Your task to perform on an android device: turn on the 24-hour format for clock Image 0: 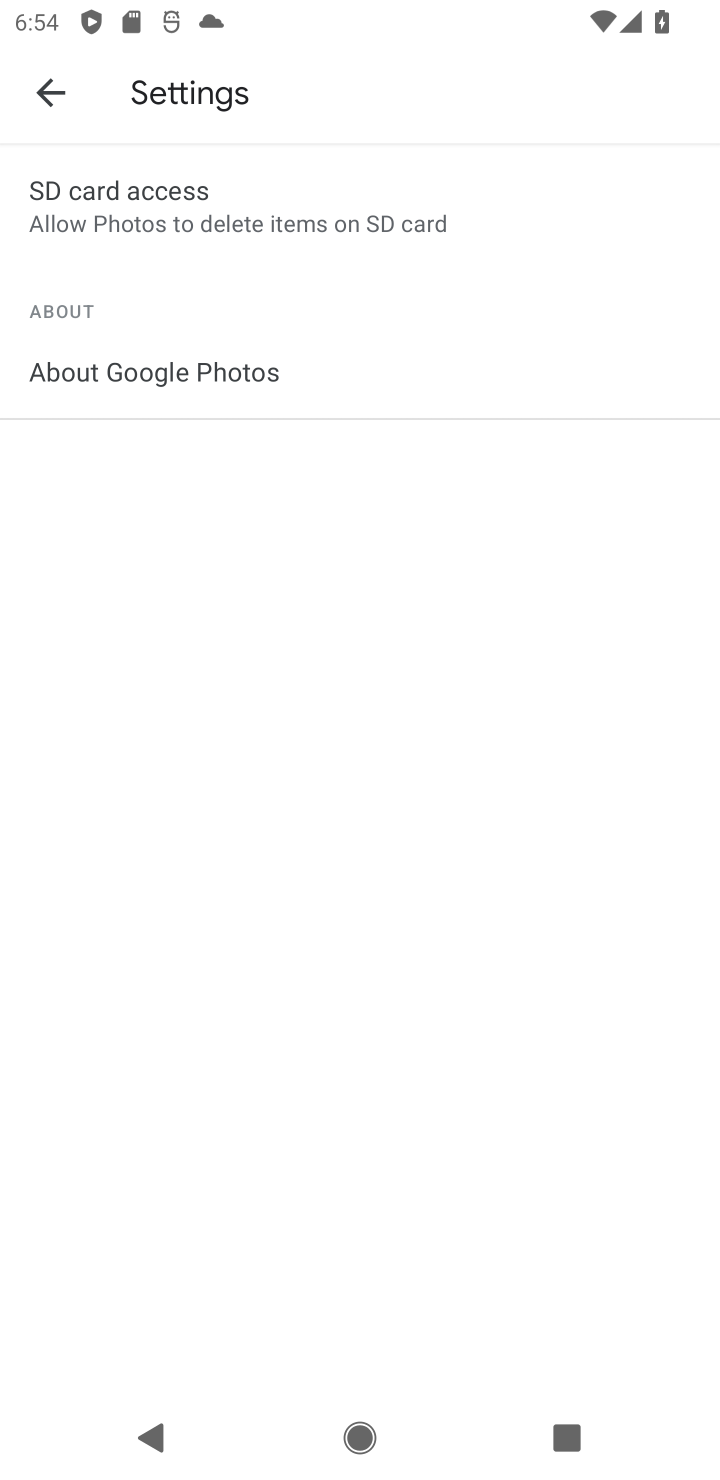
Step 0: press home button
Your task to perform on an android device: turn on the 24-hour format for clock Image 1: 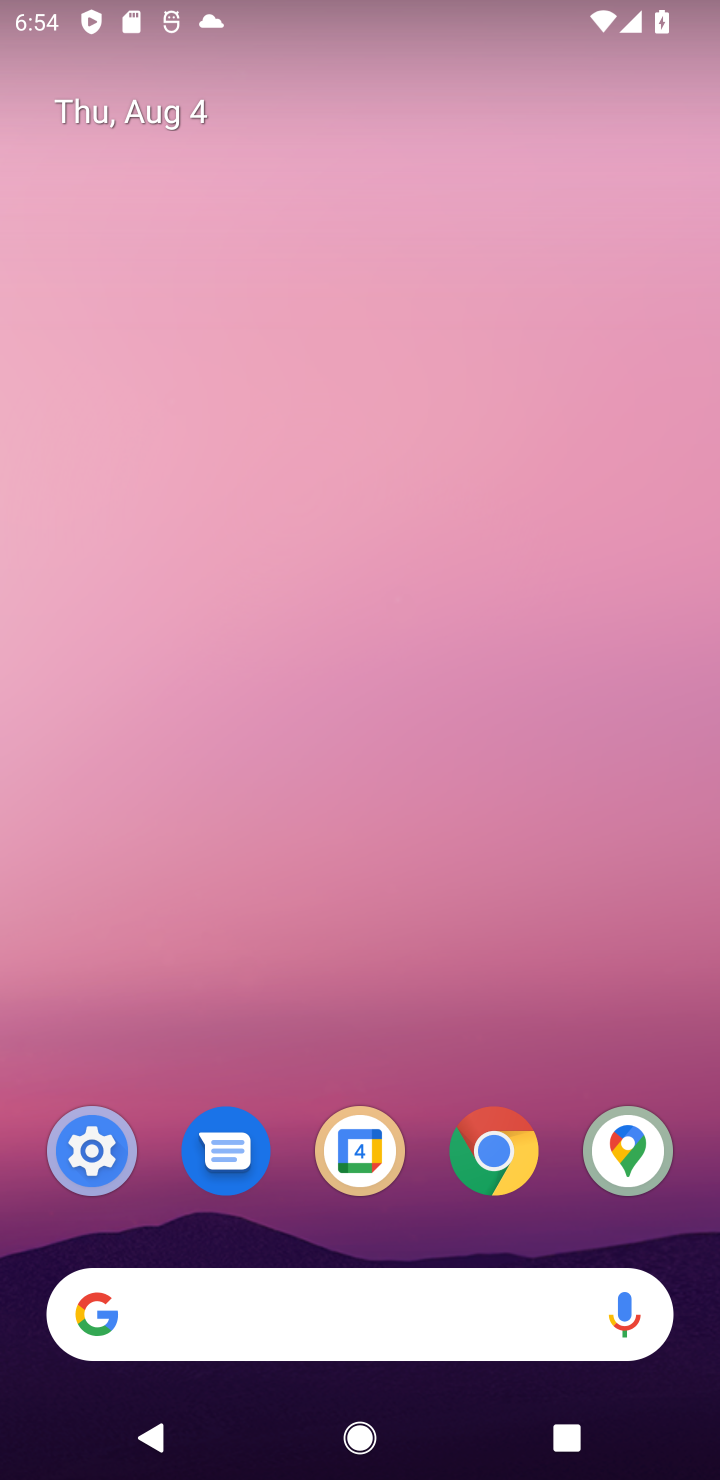
Step 1: drag from (413, 1242) to (364, 4)
Your task to perform on an android device: turn on the 24-hour format for clock Image 2: 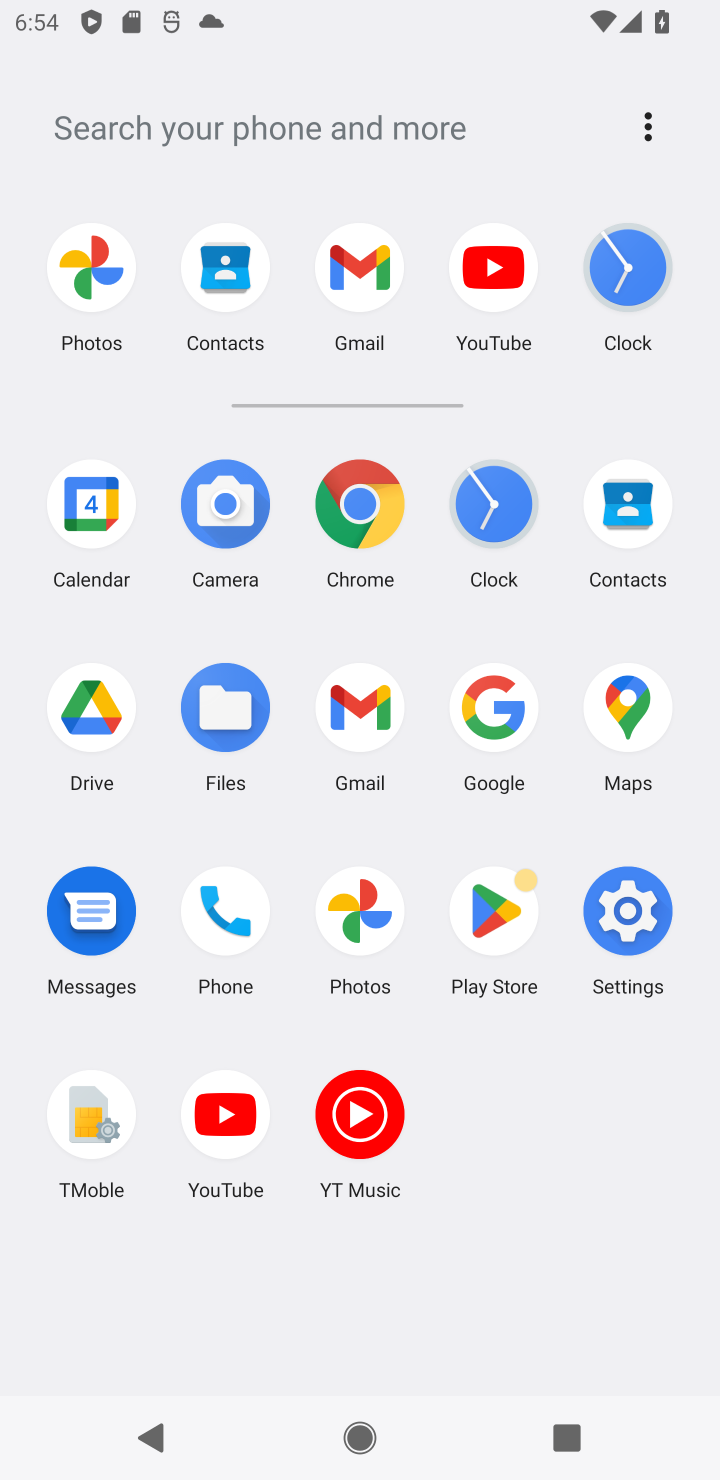
Step 2: click (595, 937)
Your task to perform on an android device: turn on the 24-hour format for clock Image 3: 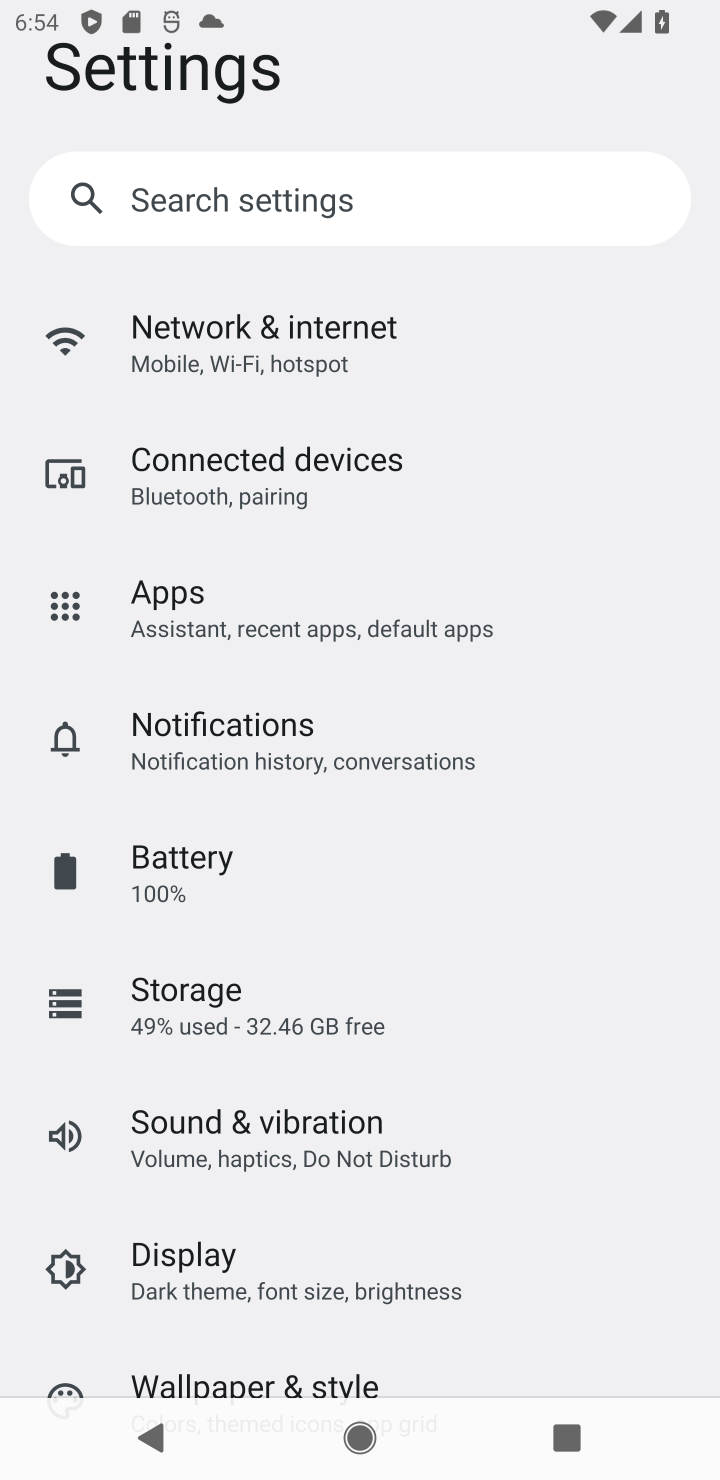
Step 3: drag from (335, 1152) to (392, 747)
Your task to perform on an android device: turn on the 24-hour format for clock Image 4: 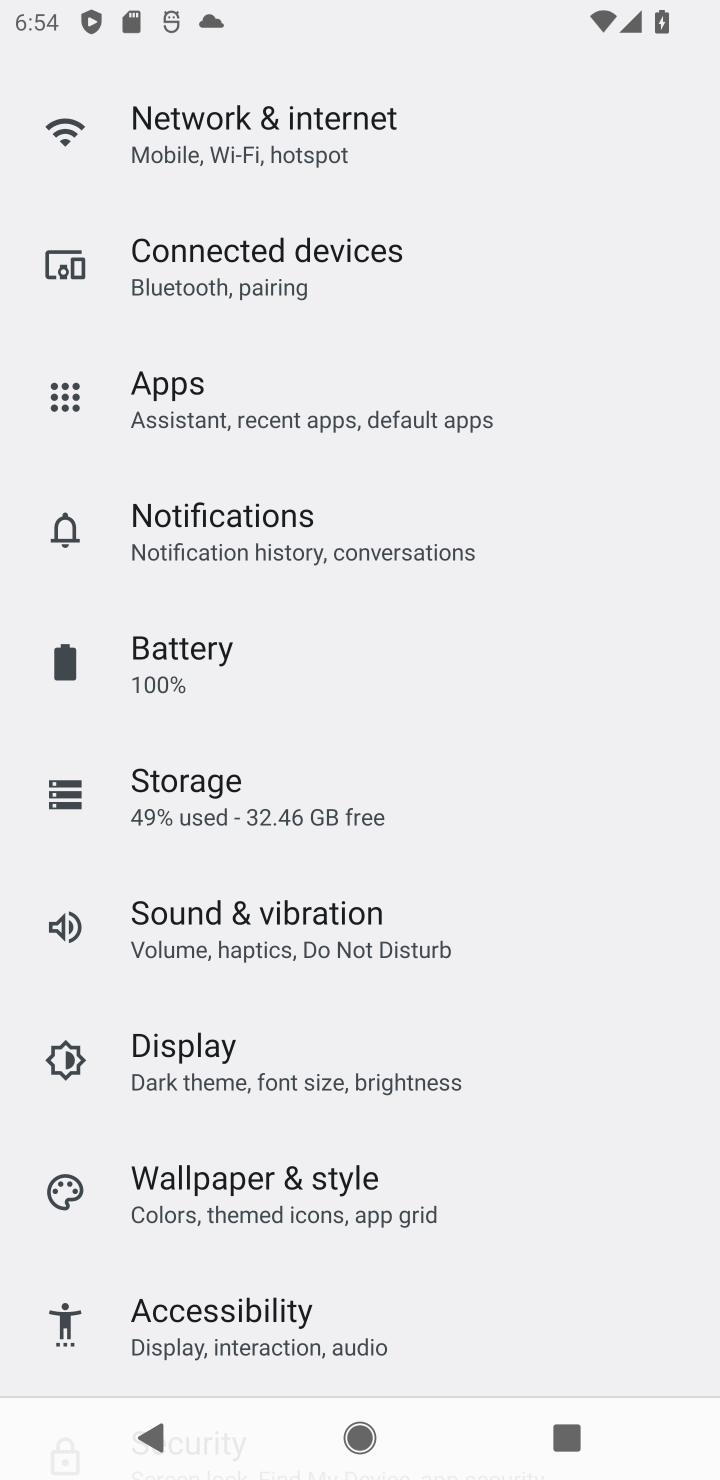
Step 4: drag from (260, 1061) to (350, 299)
Your task to perform on an android device: turn on the 24-hour format for clock Image 5: 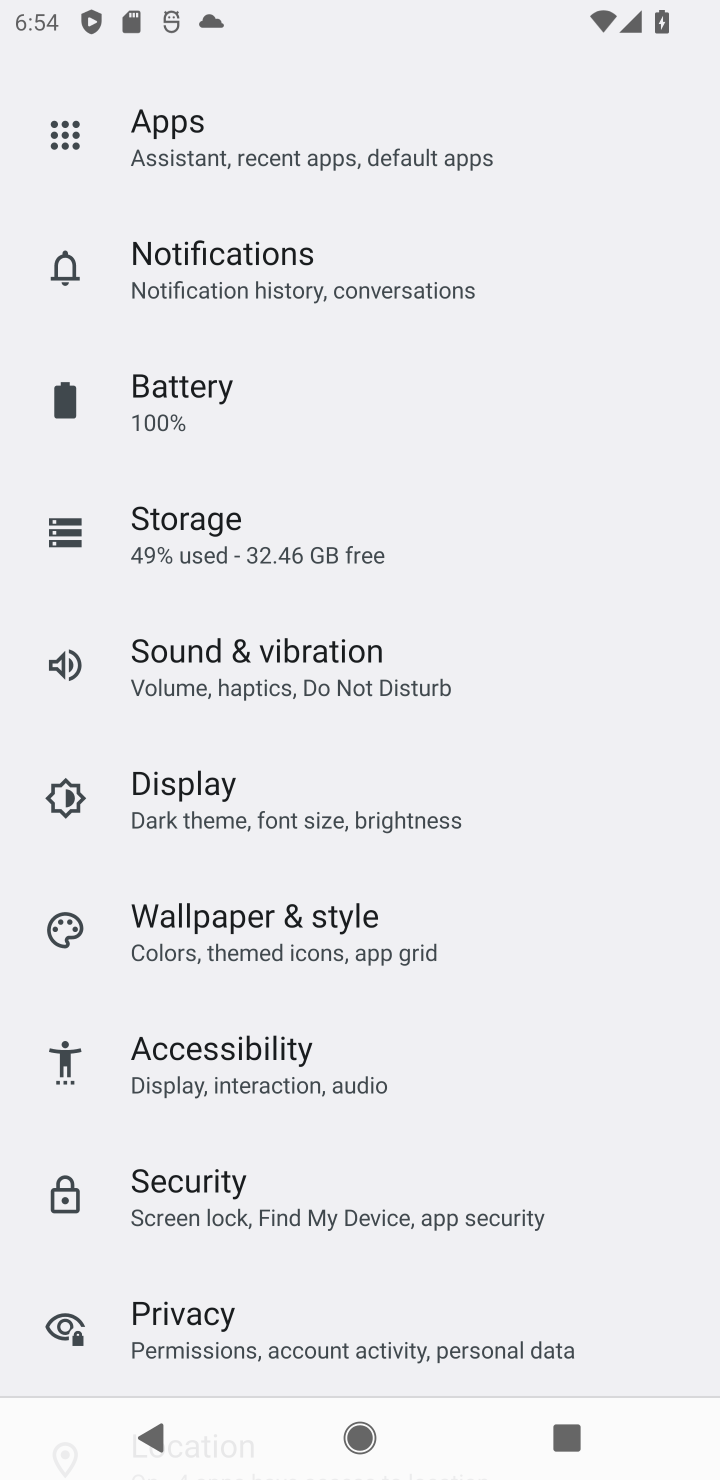
Step 5: drag from (389, 1195) to (544, 160)
Your task to perform on an android device: turn on the 24-hour format for clock Image 6: 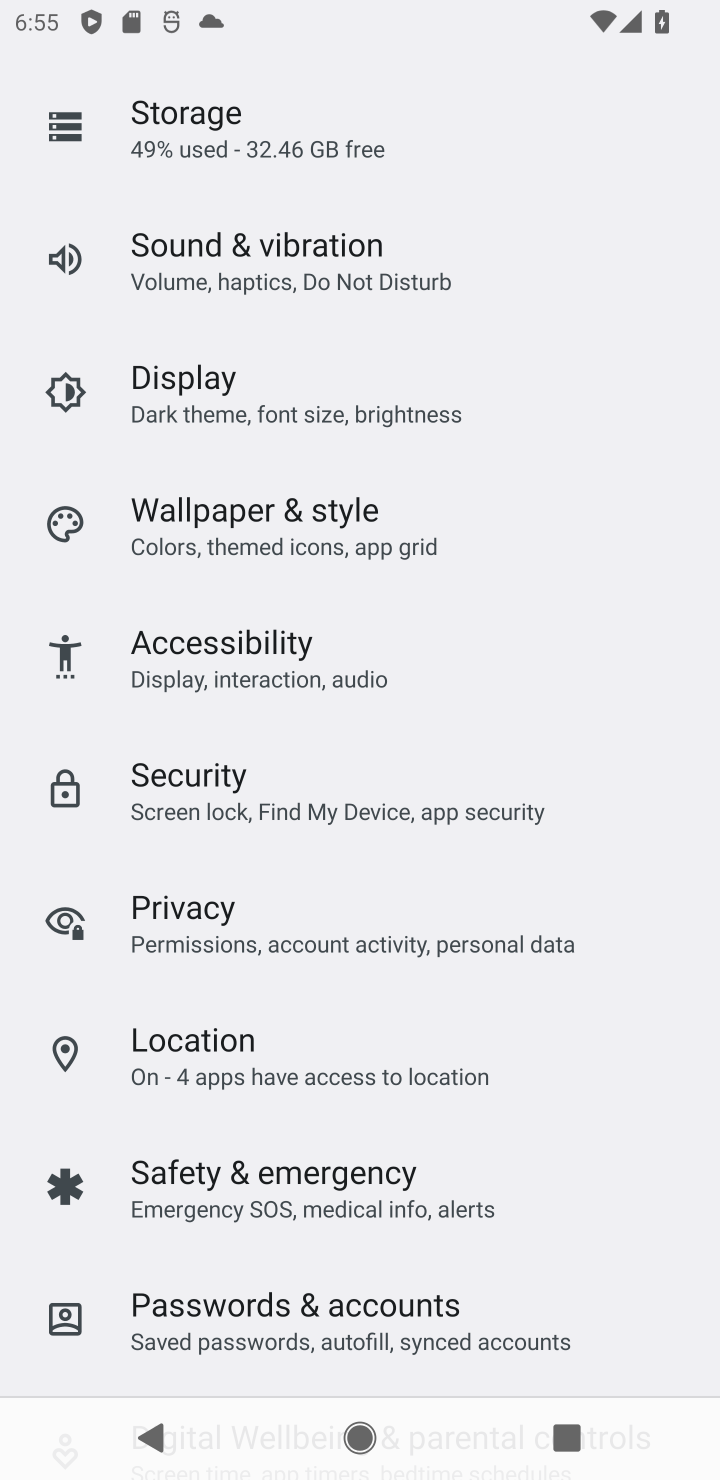
Step 6: drag from (353, 1220) to (396, 509)
Your task to perform on an android device: turn on the 24-hour format for clock Image 7: 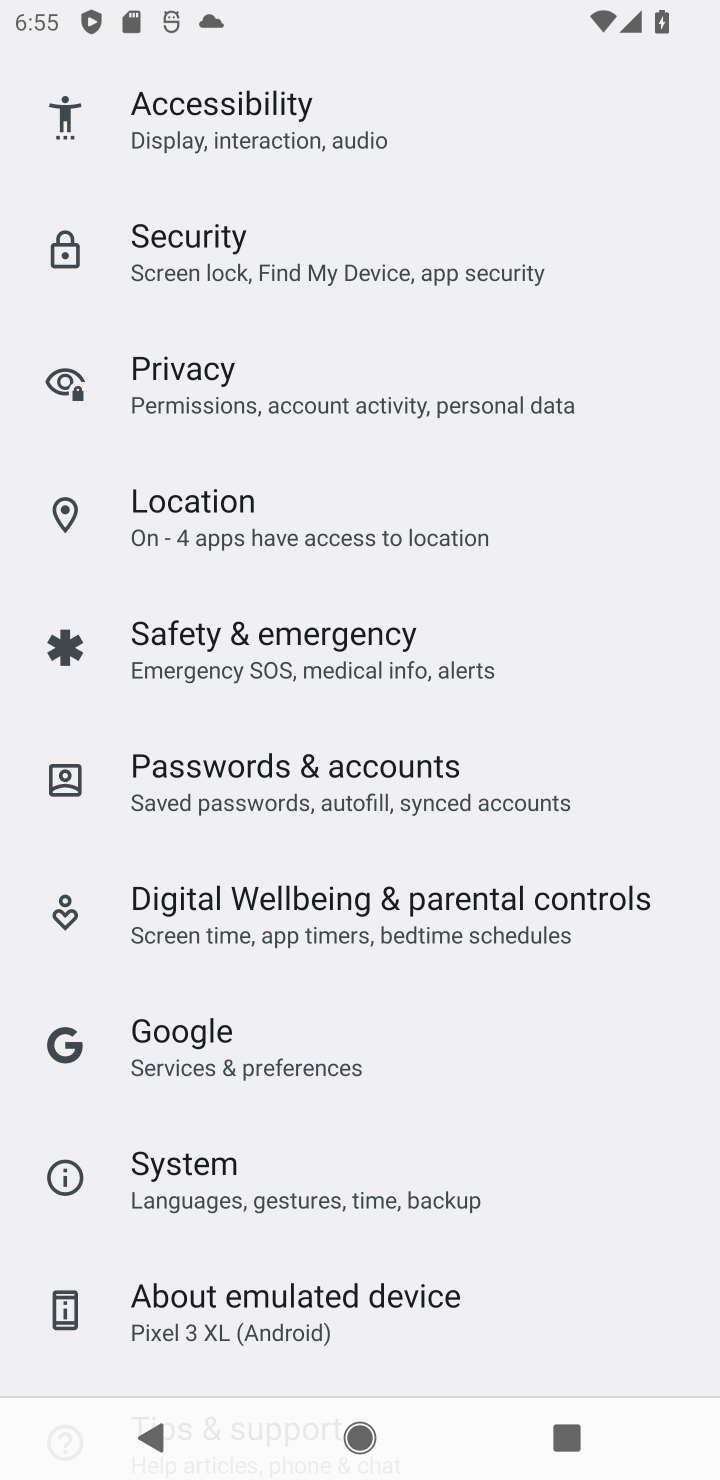
Step 7: click (261, 1169)
Your task to perform on an android device: turn on the 24-hour format for clock Image 8: 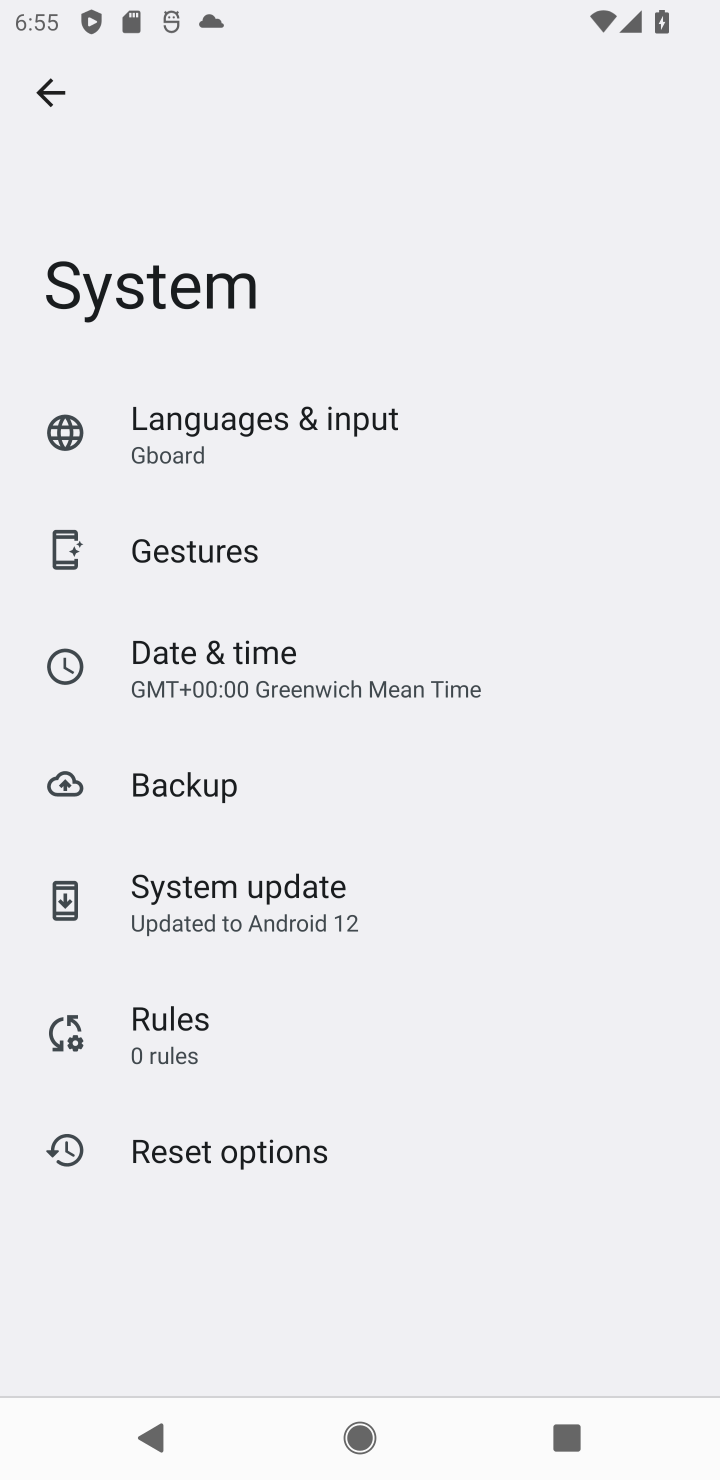
Step 8: click (212, 426)
Your task to perform on an android device: turn on the 24-hour format for clock Image 9: 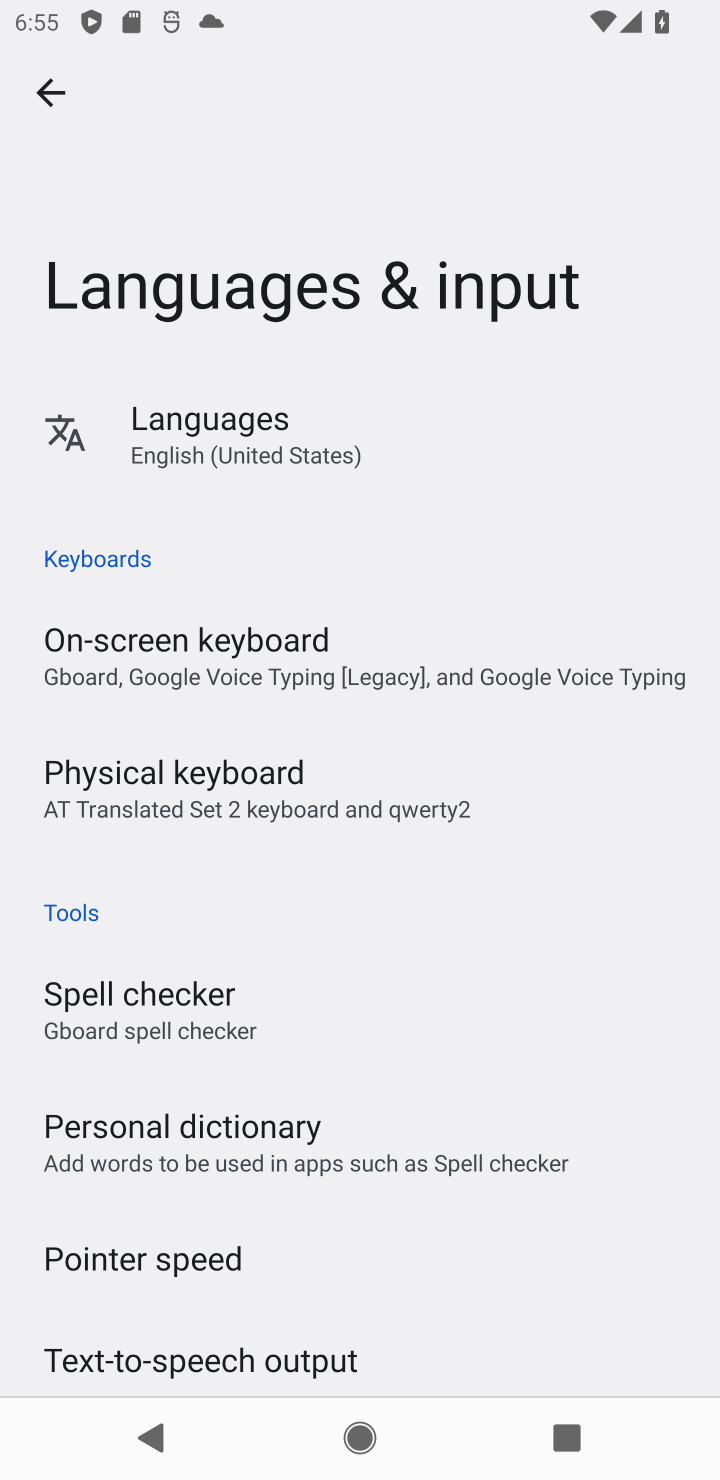
Step 9: drag from (217, 1135) to (239, 718)
Your task to perform on an android device: turn on the 24-hour format for clock Image 10: 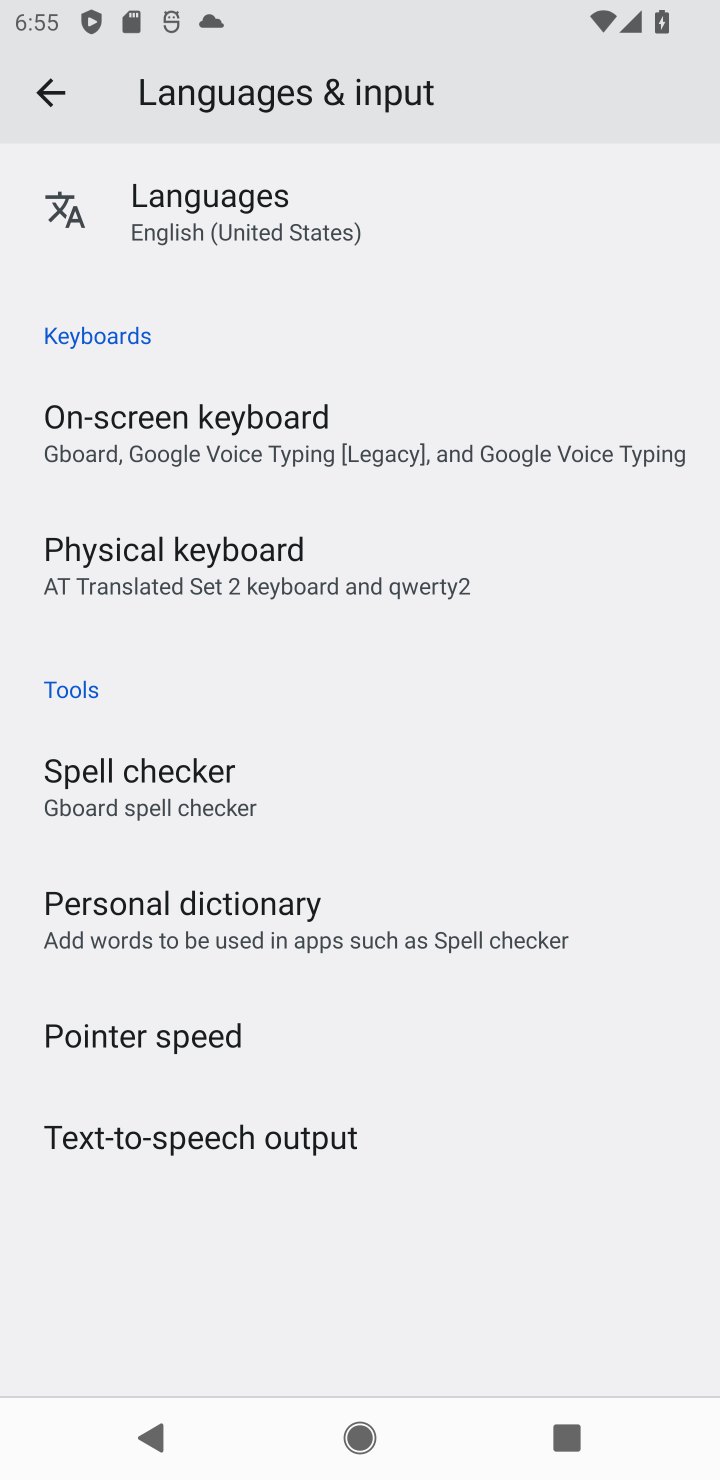
Step 10: click (43, 67)
Your task to perform on an android device: turn on the 24-hour format for clock Image 11: 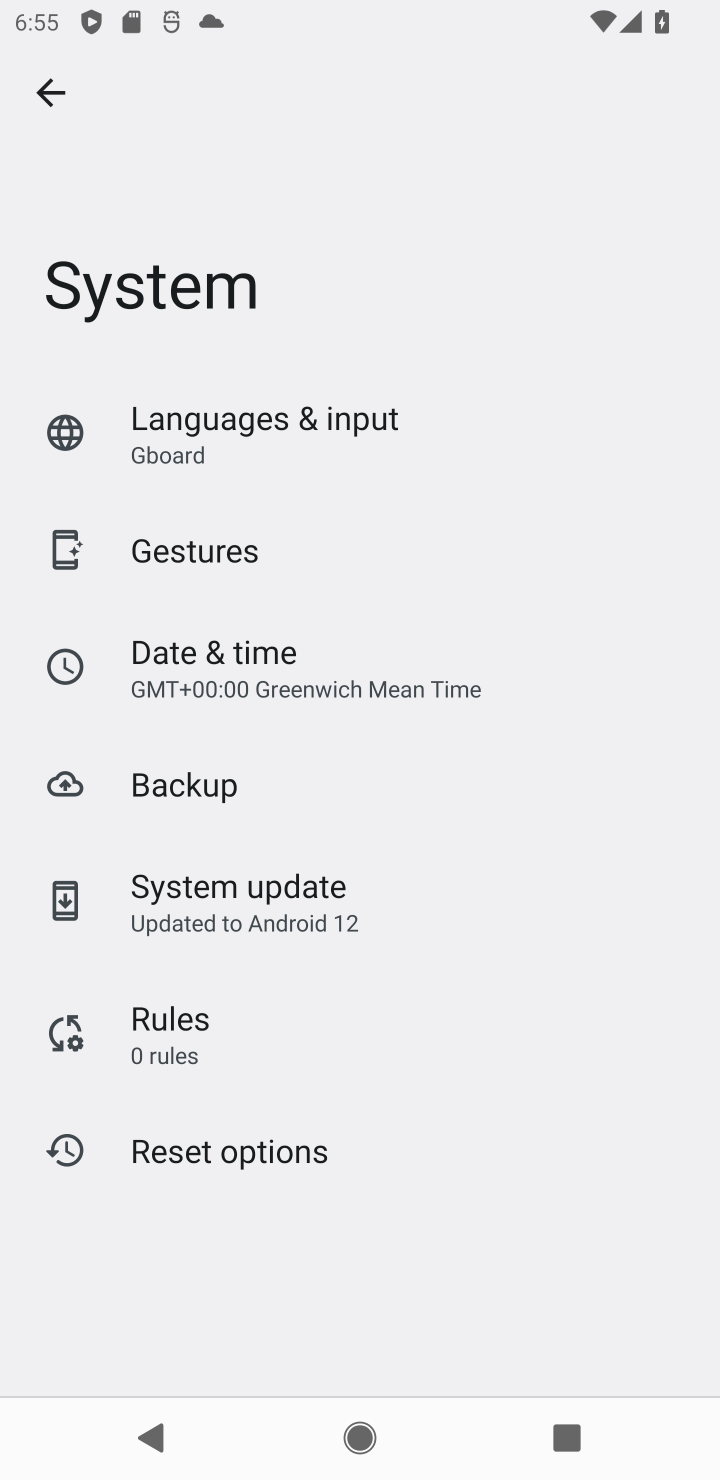
Step 11: click (270, 677)
Your task to perform on an android device: turn on the 24-hour format for clock Image 12: 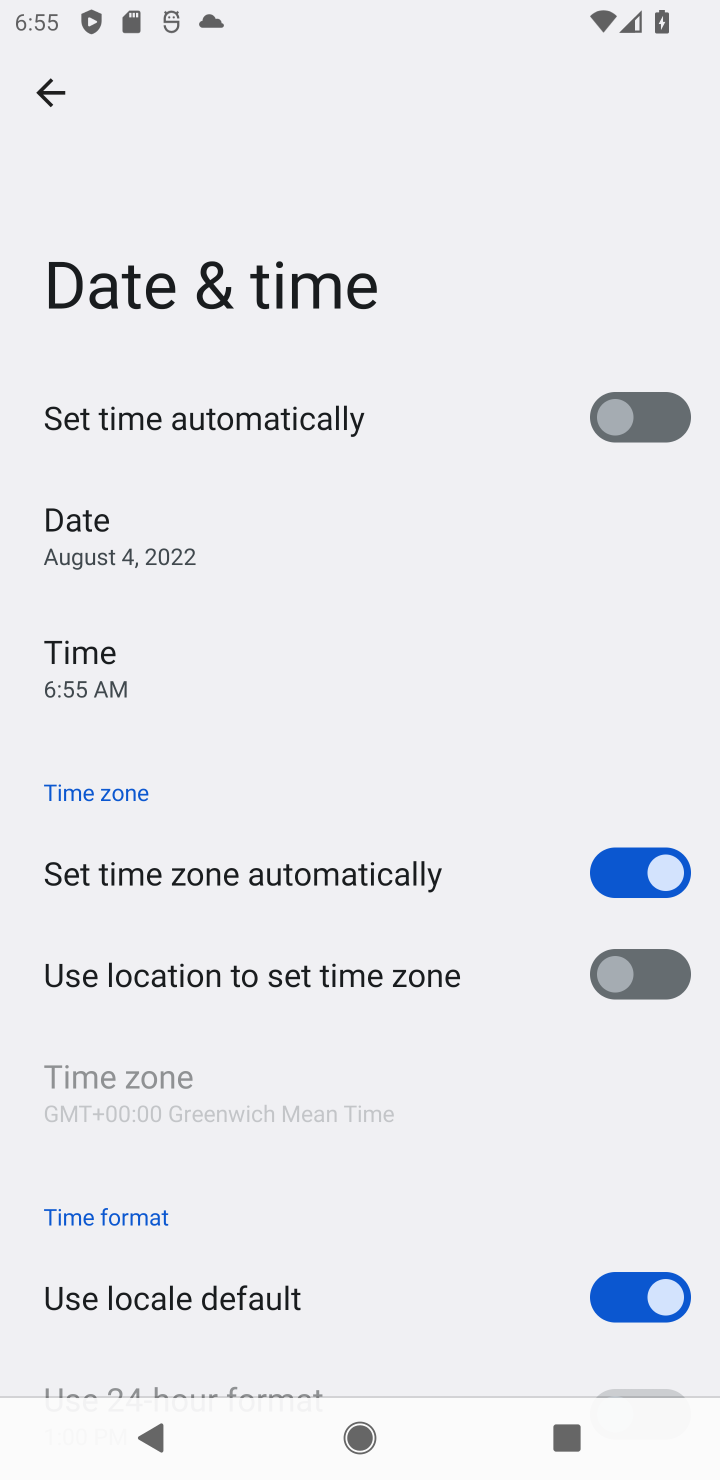
Step 12: drag from (357, 1194) to (404, 714)
Your task to perform on an android device: turn on the 24-hour format for clock Image 13: 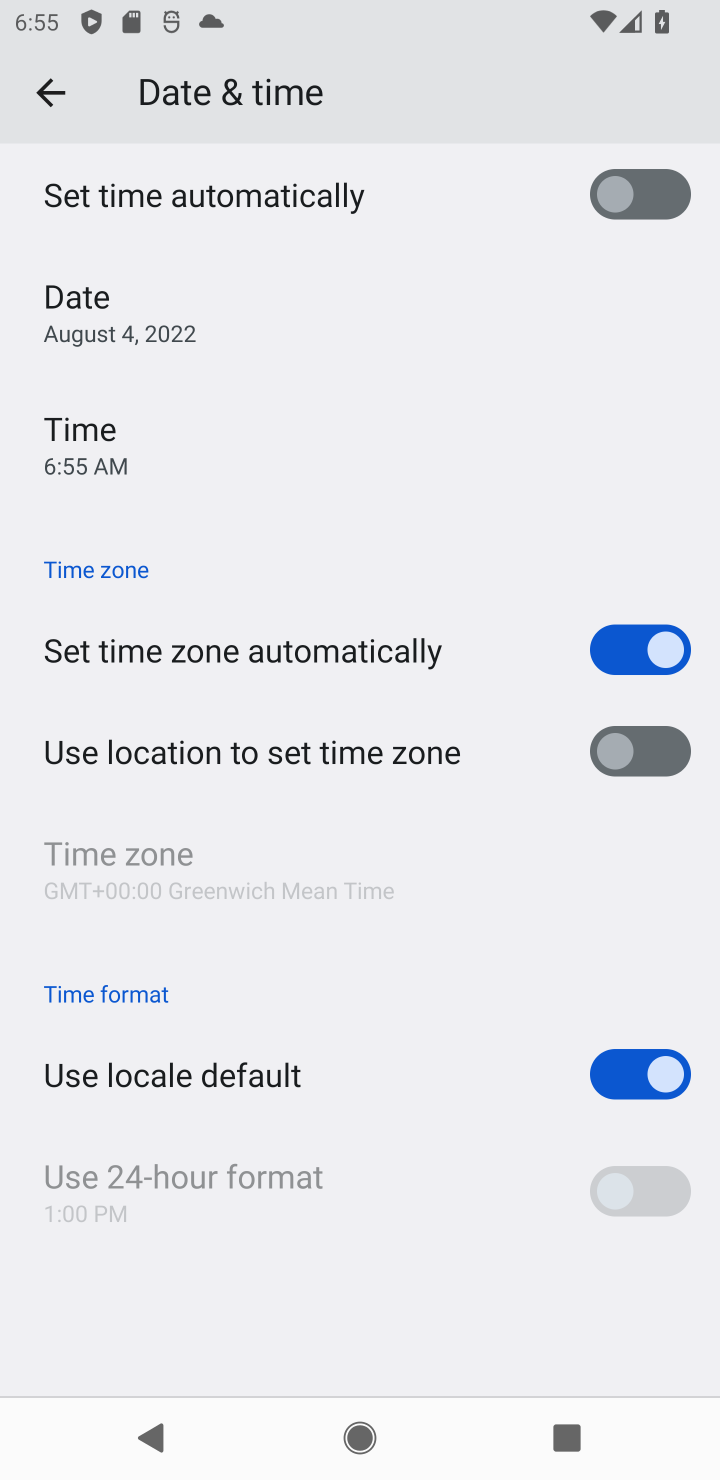
Step 13: click (606, 1073)
Your task to perform on an android device: turn on the 24-hour format for clock Image 14: 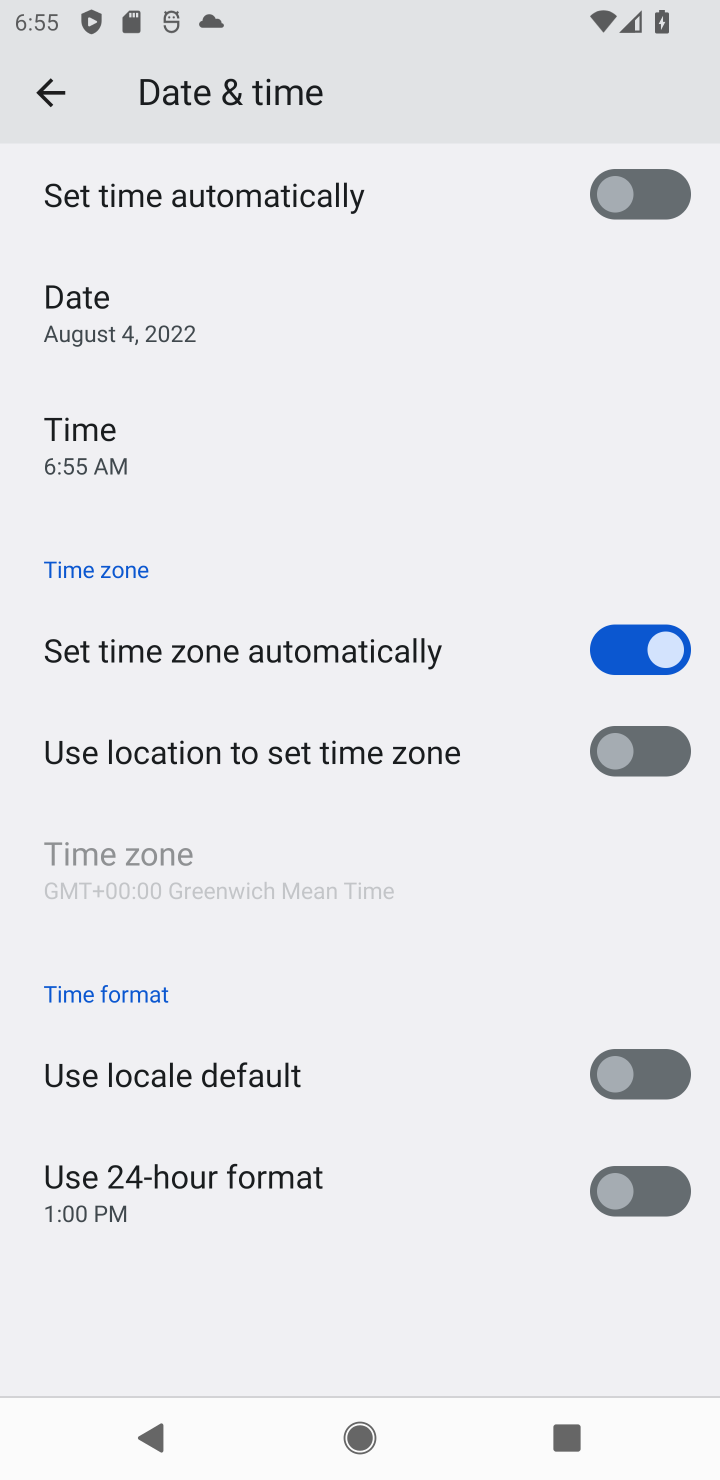
Step 14: click (685, 1190)
Your task to perform on an android device: turn on the 24-hour format for clock Image 15: 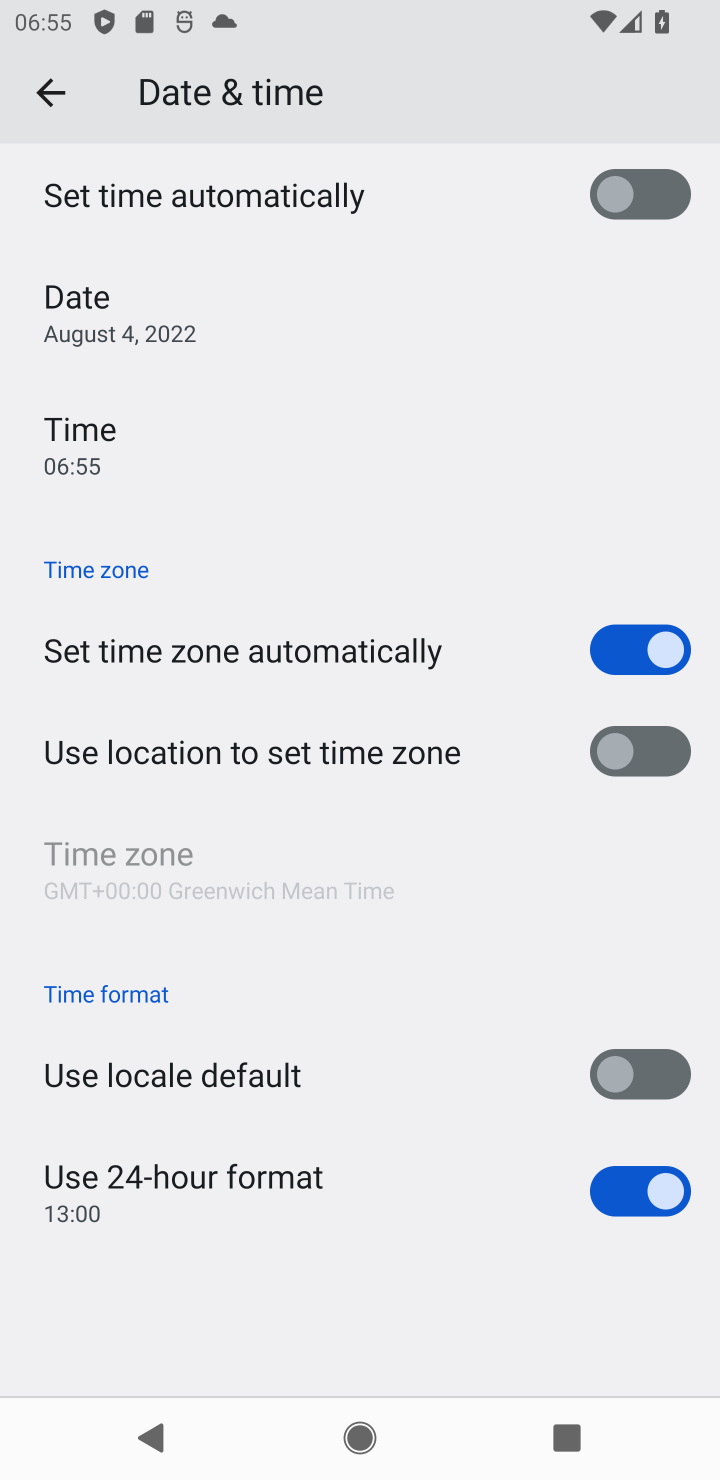
Step 15: task complete